Your task to perform on an android device: read, delete, or share a saved page in the chrome app Image 0: 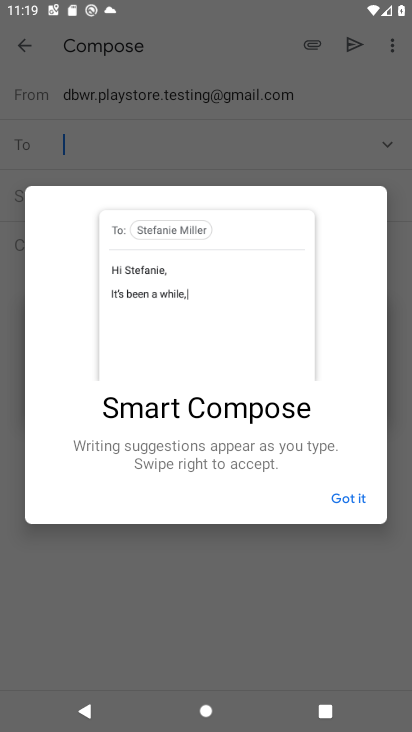
Step 0: press home button
Your task to perform on an android device: read, delete, or share a saved page in the chrome app Image 1: 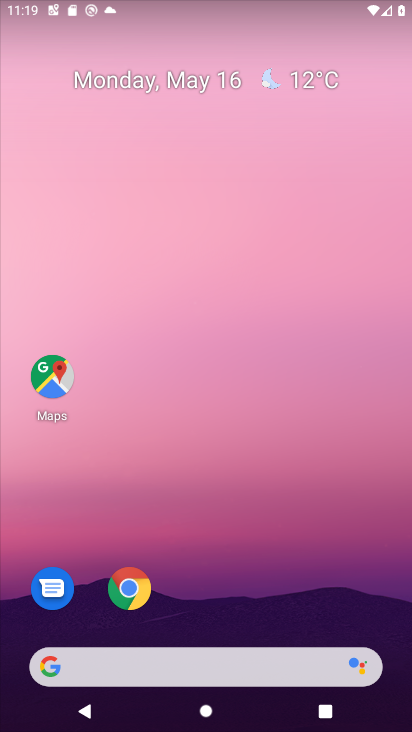
Step 1: click (123, 586)
Your task to perform on an android device: read, delete, or share a saved page in the chrome app Image 2: 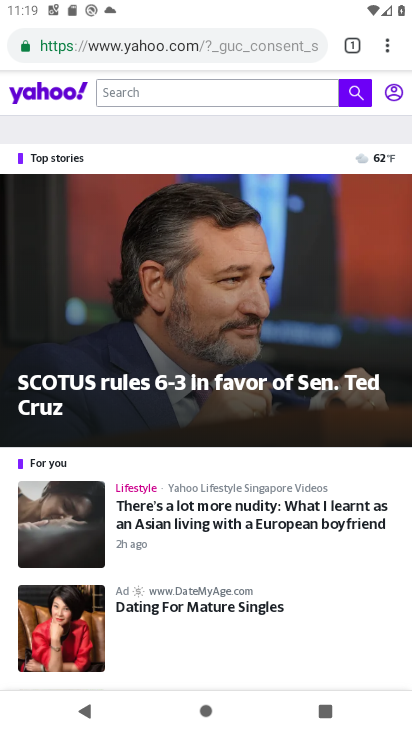
Step 2: click (386, 36)
Your task to perform on an android device: read, delete, or share a saved page in the chrome app Image 3: 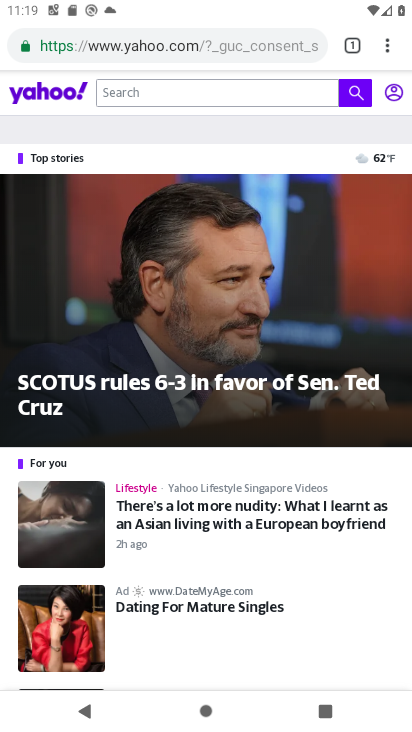
Step 3: click (387, 37)
Your task to perform on an android device: read, delete, or share a saved page in the chrome app Image 4: 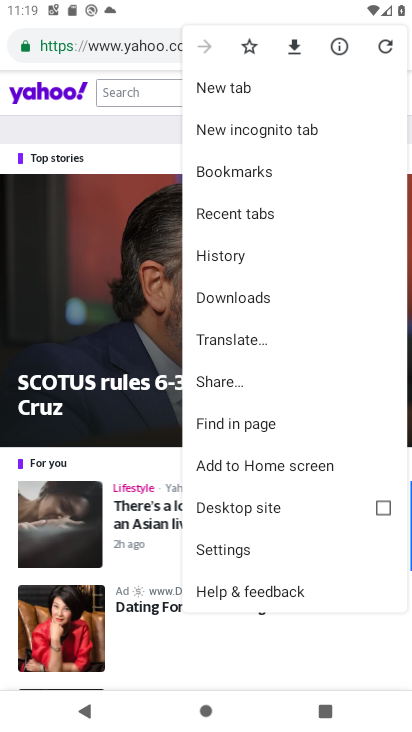
Step 4: click (283, 295)
Your task to perform on an android device: read, delete, or share a saved page in the chrome app Image 5: 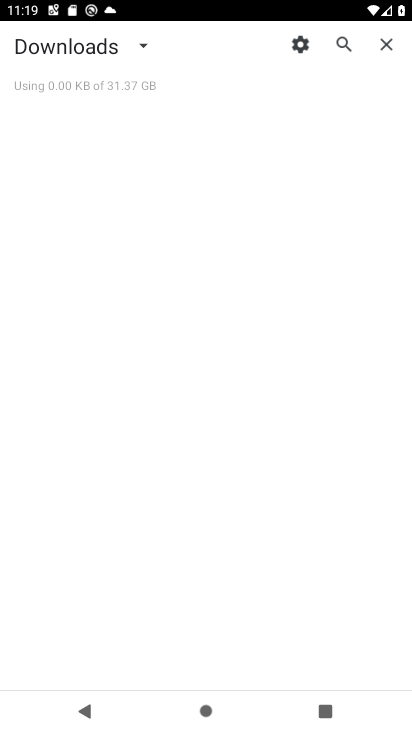
Step 5: task complete